Your task to perform on an android device: turn on bluetooth scan Image 0: 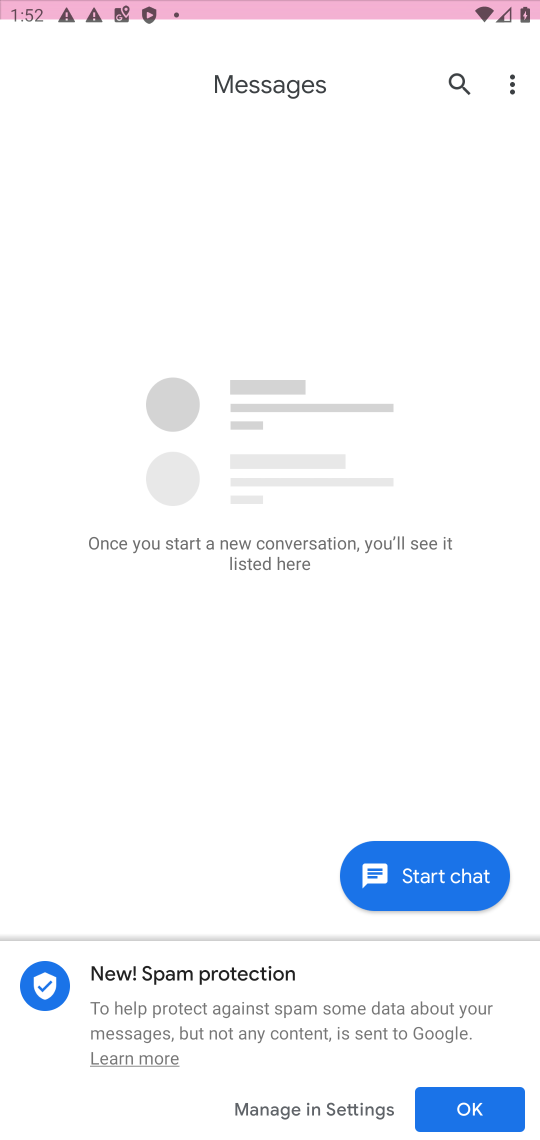
Step 0: click (294, 75)
Your task to perform on an android device: turn on bluetooth scan Image 1: 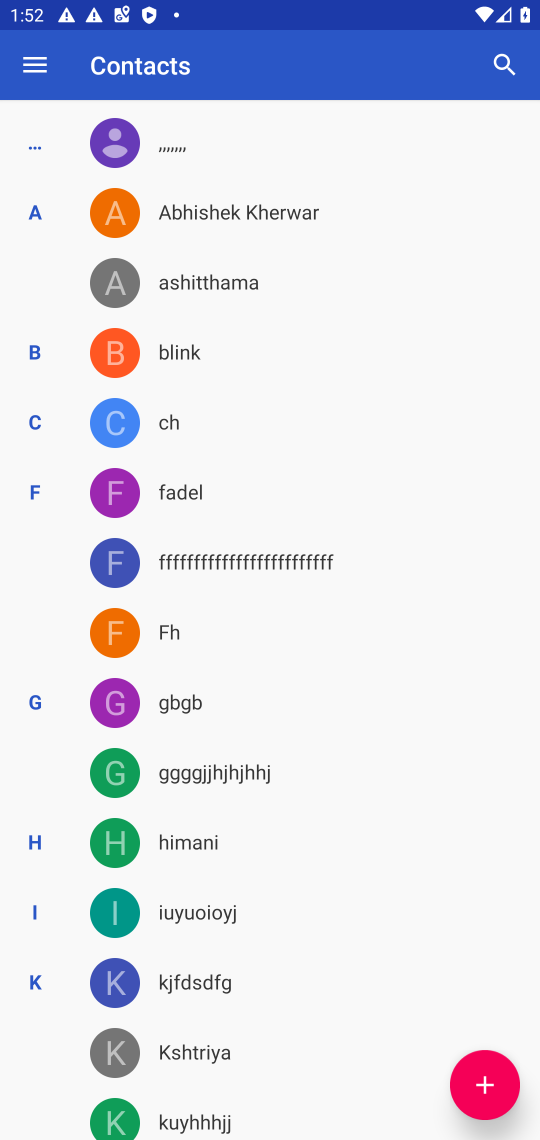
Step 1: press home button
Your task to perform on an android device: turn on bluetooth scan Image 2: 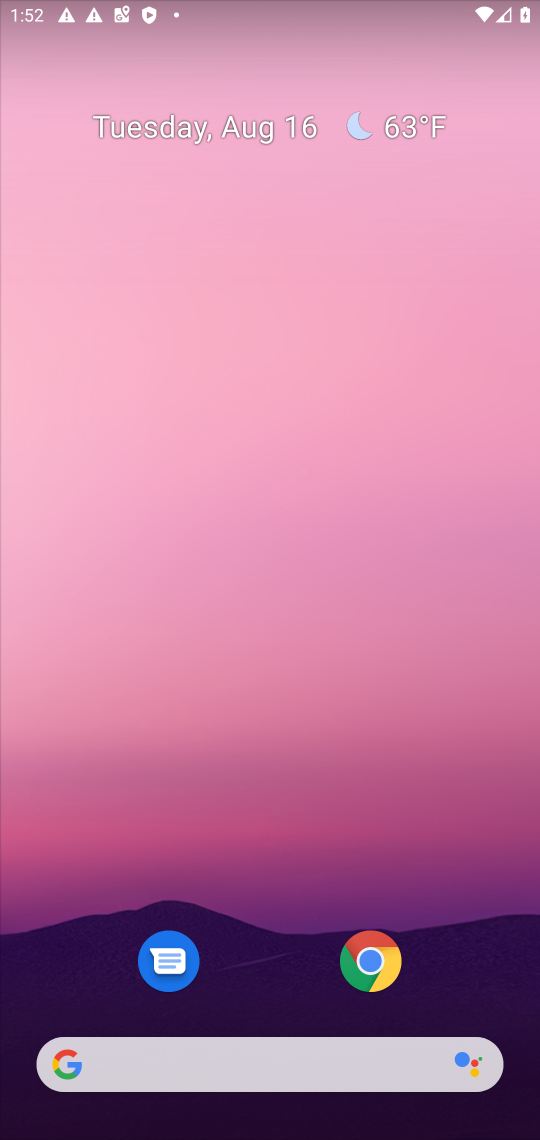
Step 2: drag from (499, 964) to (312, 101)
Your task to perform on an android device: turn on bluetooth scan Image 3: 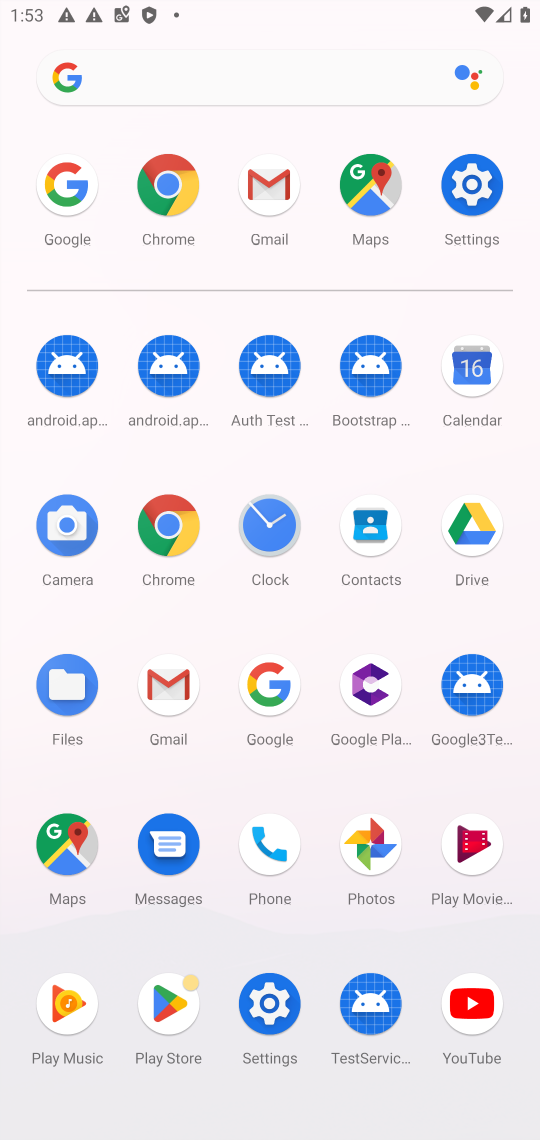
Step 3: click (286, 998)
Your task to perform on an android device: turn on bluetooth scan Image 4: 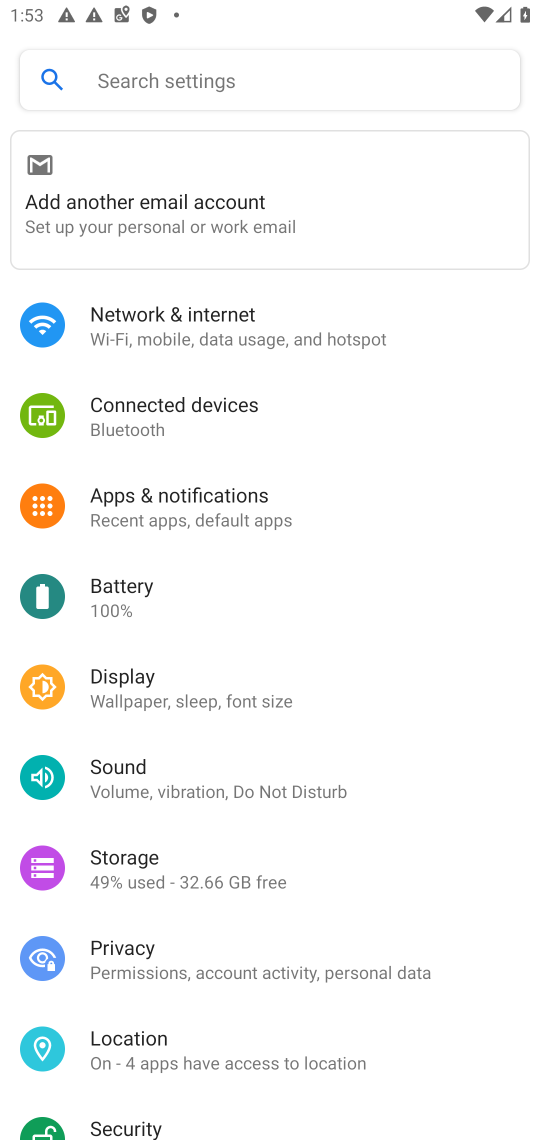
Step 4: click (163, 1067)
Your task to perform on an android device: turn on bluetooth scan Image 5: 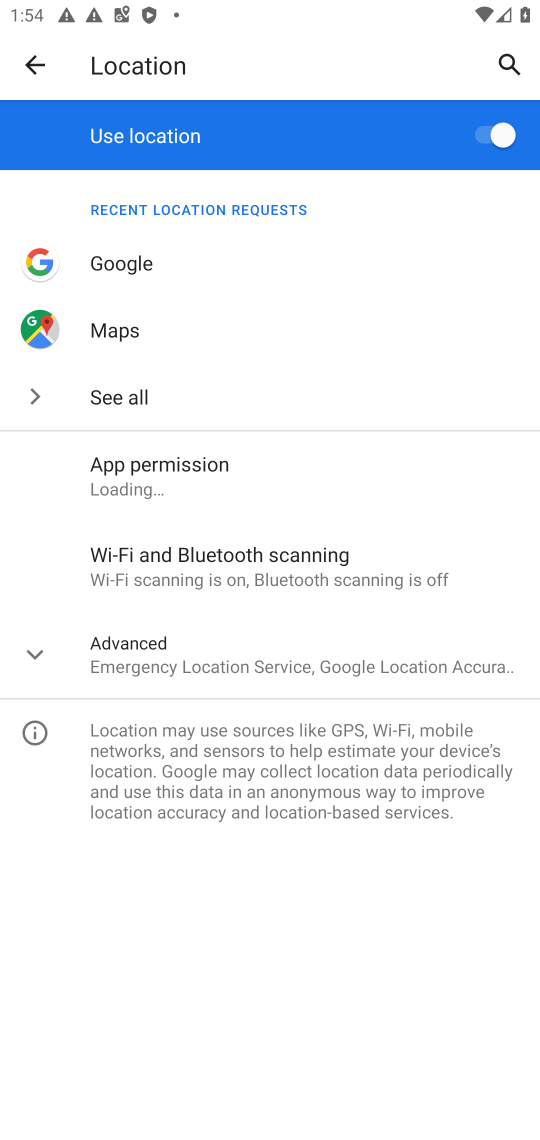
Step 5: click (315, 621)
Your task to perform on an android device: turn on bluetooth scan Image 6: 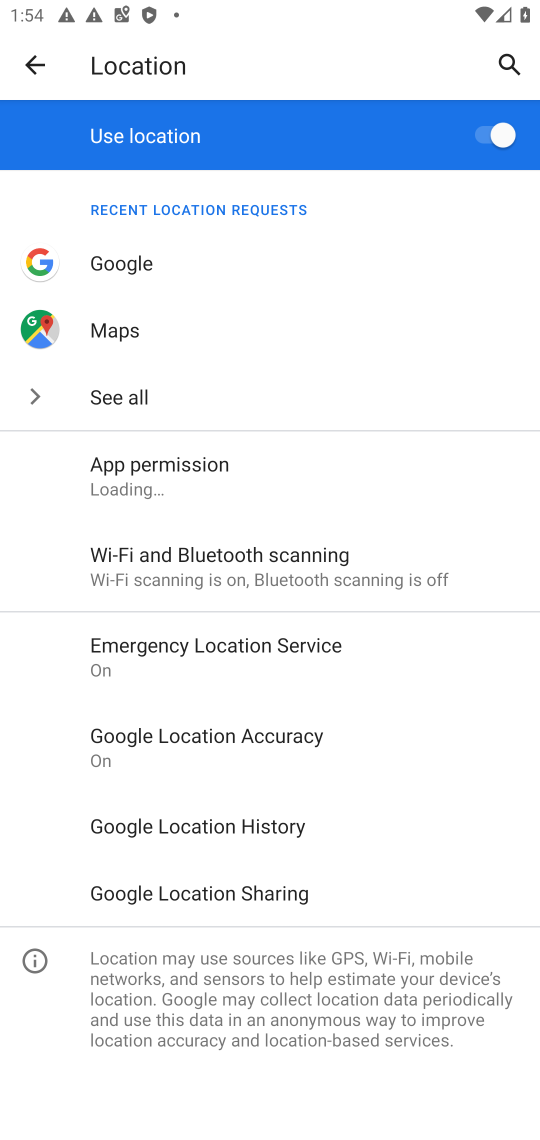
Step 6: click (287, 553)
Your task to perform on an android device: turn on bluetooth scan Image 7: 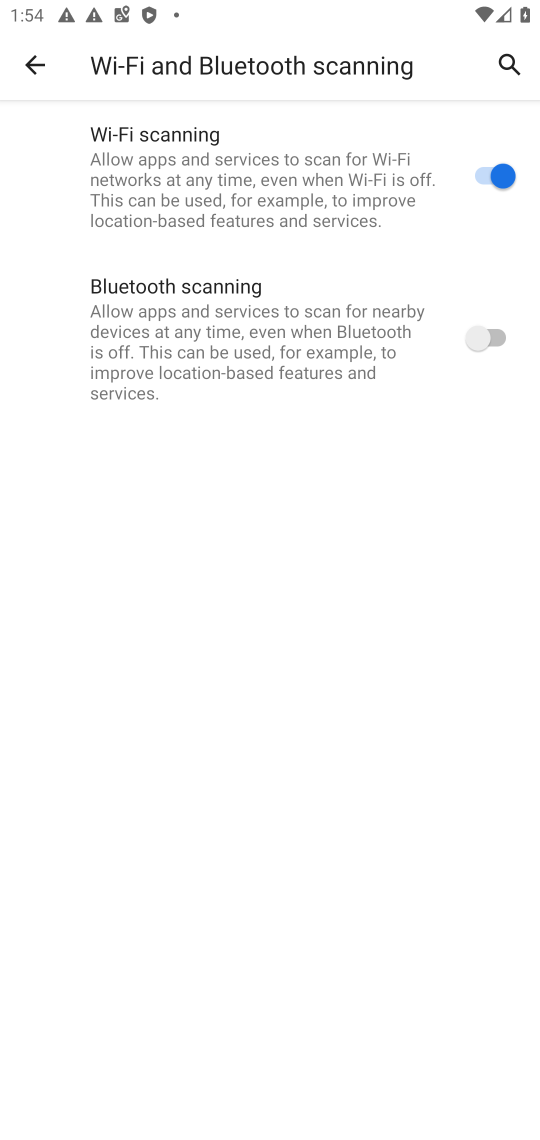
Step 7: click (301, 355)
Your task to perform on an android device: turn on bluetooth scan Image 8: 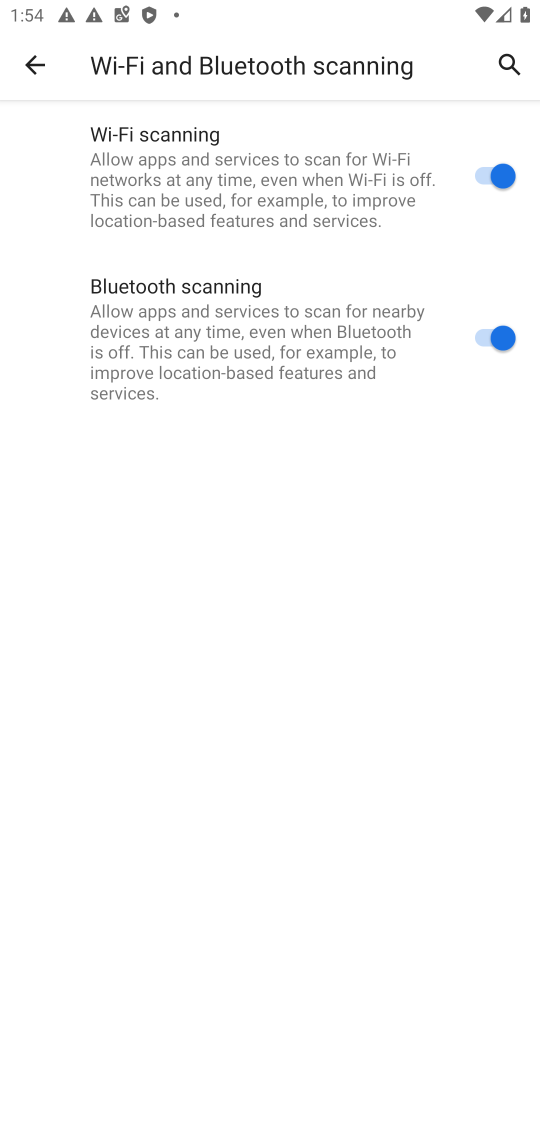
Step 8: task complete